Your task to perform on an android device: Search for the best coffee tables on Crate & Barrel Image 0: 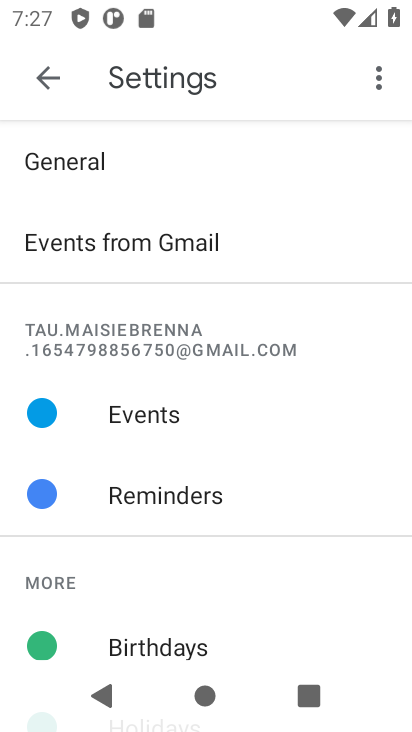
Step 0: press home button
Your task to perform on an android device: Search for the best coffee tables on Crate & Barrel Image 1: 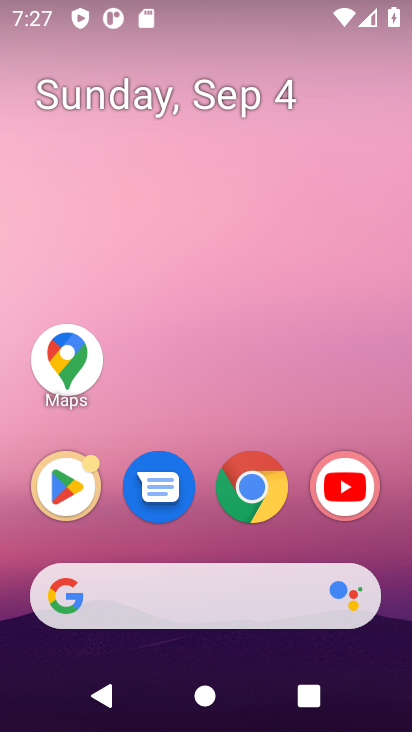
Step 1: click (248, 493)
Your task to perform on an android device: Search for the best coffee tables on Crate & Barrel Image 2: 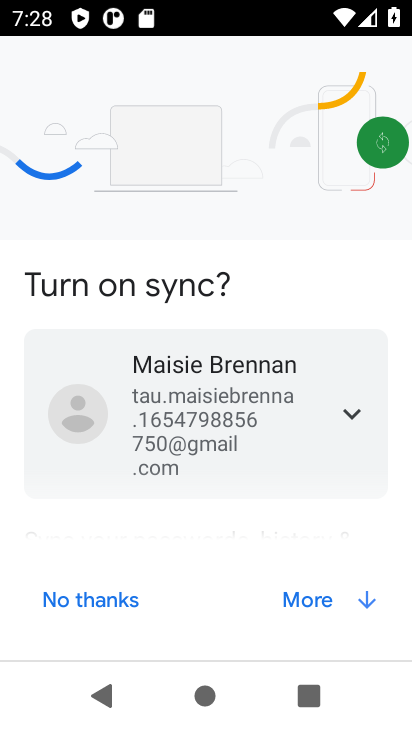
Step 2: press home button
Your task to perform on an android device: Search for the best coffee tables on Crate & Barrel Image 3: 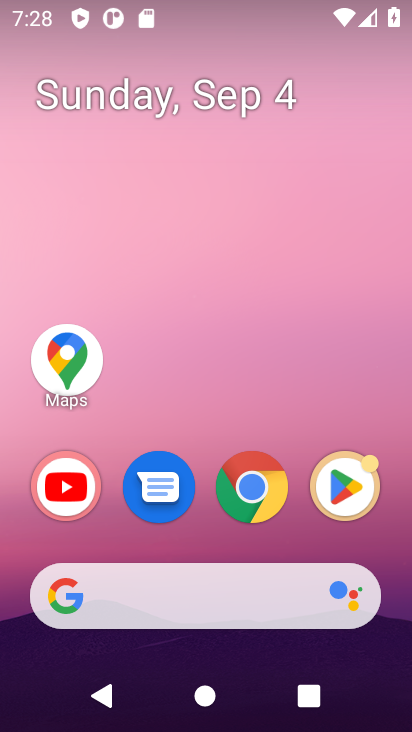
Step 3: click (141, 583)
Your task to perform on an android device: Search for the best coffee tables on Crate & Barrel Image 4: 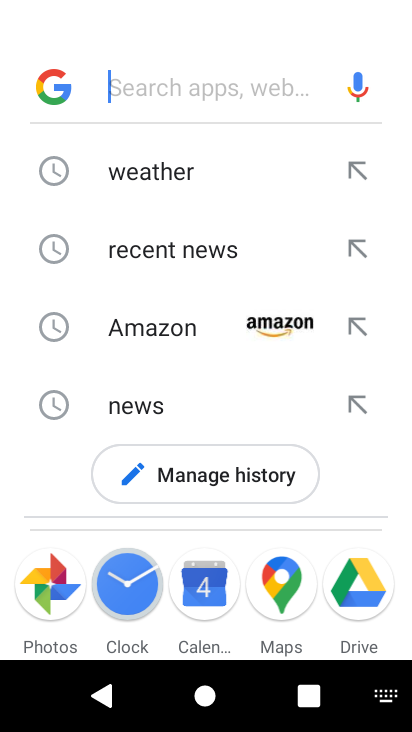
Step 4: type "the best coffee tables on Crate & Barrel"
Your task to perform on an android device: Search for the best coffee tables on Crate & Barrel Image 5: 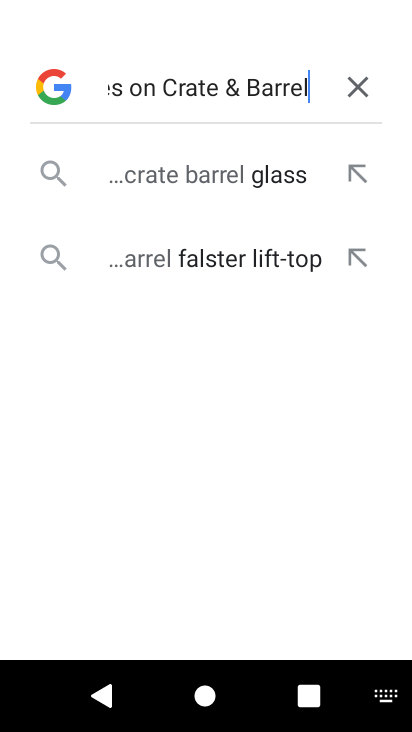
Step 5: click (263, 184)
Your task to perform on an android device: Search for the best coffee tables on Crate & Barrel Image 6: 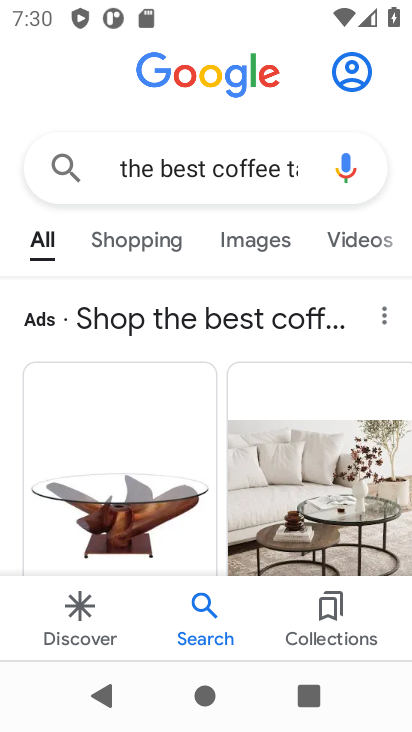
Step 6: task complete